Your task to perform on an android device: set an alarm Image 0: 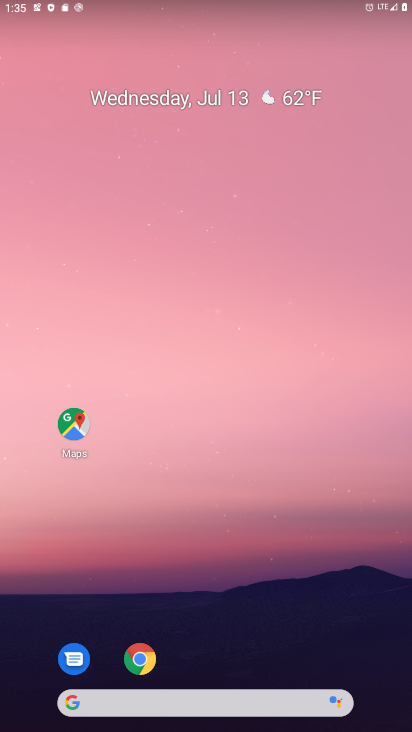
Step 0: drag from (230, 731) to (232, 243)
Your task to perform on an android device: set an alarm Image 1: 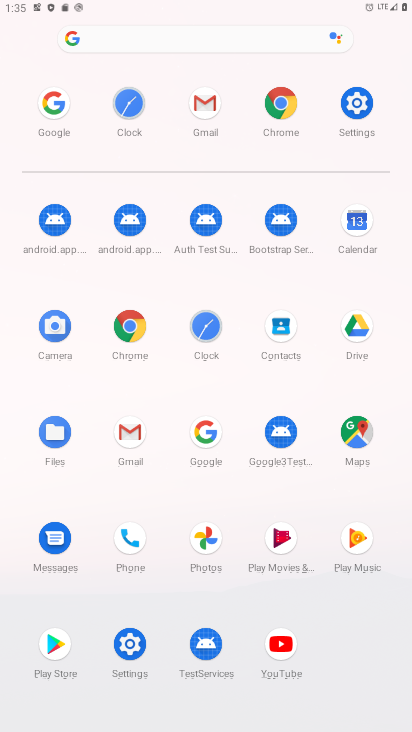
Step 1: click (201, 340)
Your task to perform on an android device: set an alarm Image 2: 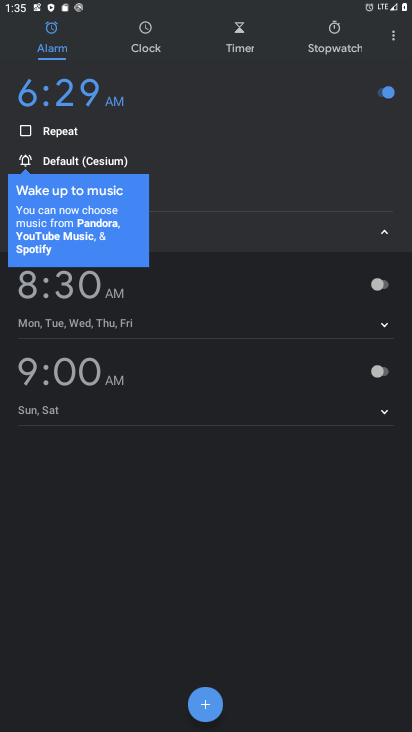
Step 2: click (206, 699)
Your task to perform on an android device: set an alarm Image 3: 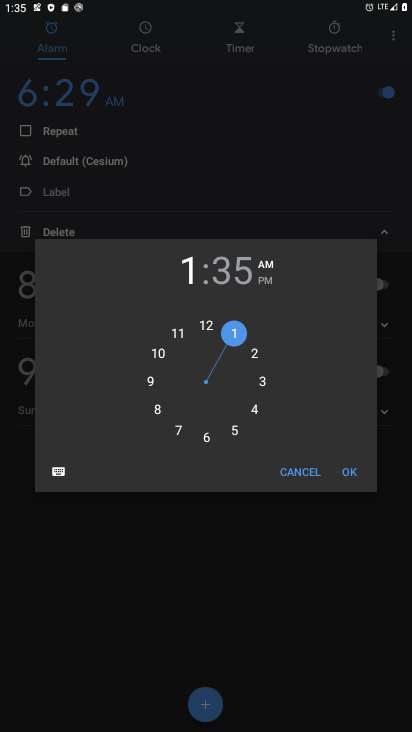
Step 3: click (210, 436)
Your task to perform on an android device: set an alarm Image 4: 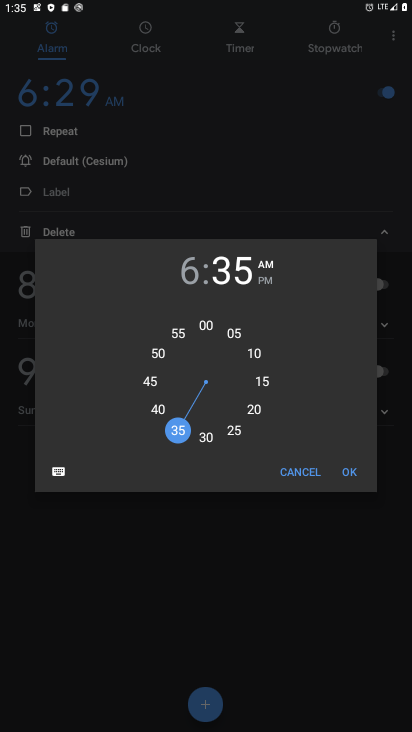
Step 4: click (347, 467)
Your task to perform on an android device: set an alarm Image 5: 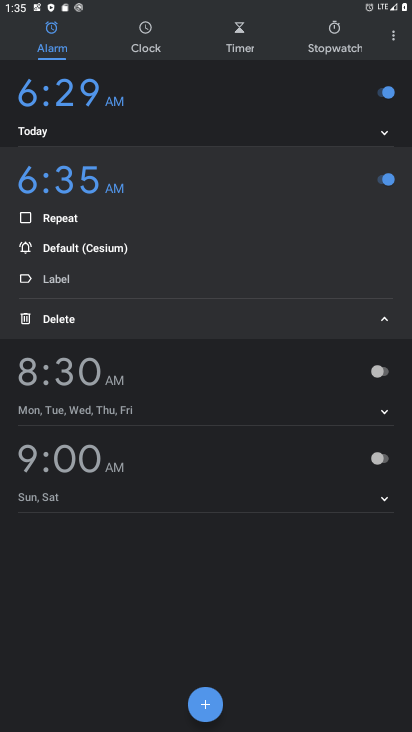
Step 5: task complete